Your task to perform on an android device: Open location settings Image 0: 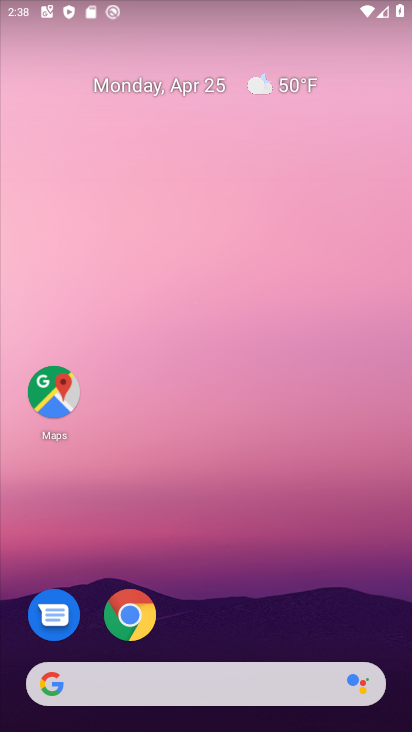
Step 0: drag from (216, 727) to (219, 104)
Your task to perform on an android device: Open location settings Image 1: 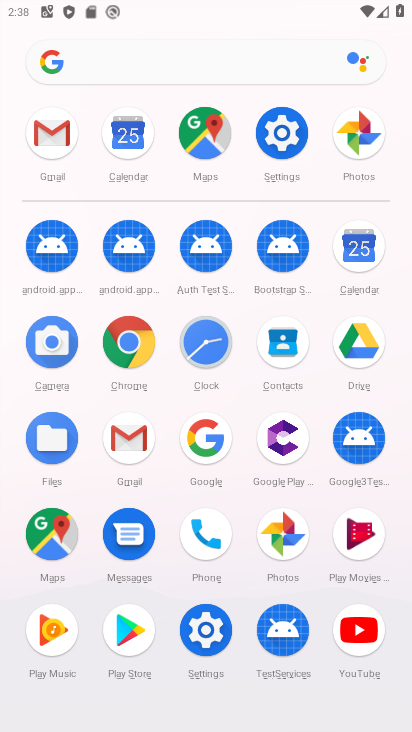
Step 1: click (285, 141)
Your task to perform on an android device: Open location settings Image 2: 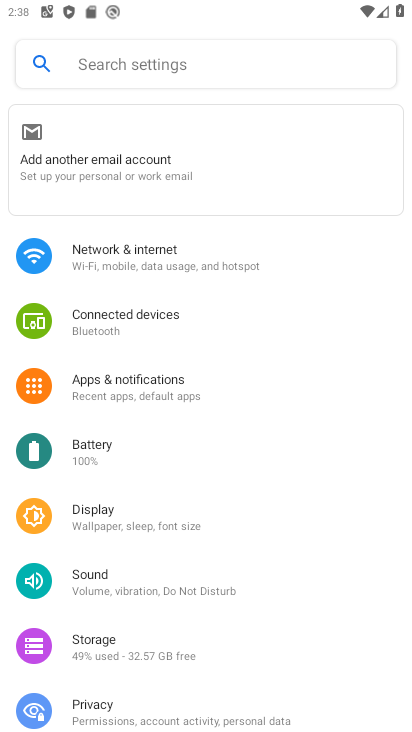
Step 2: drag from (137, 694) to (144, 361)
Your task to perform on an android device: Open location settings Image 3: 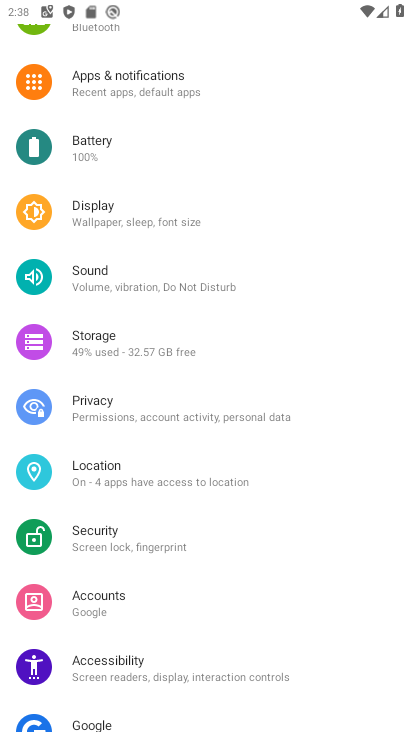
Step 3: click (103, 469)
Your task to perform on an android device: Open location settings Image 4: 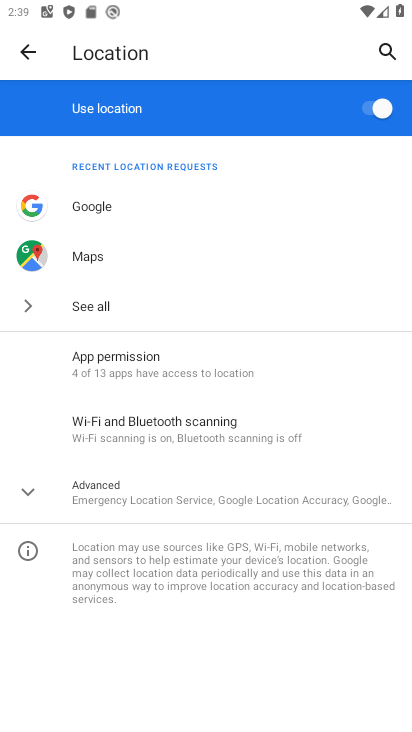
Step 4: task complete